Your task to perform on an android device: Show me the alarms in the clock app Image 0: 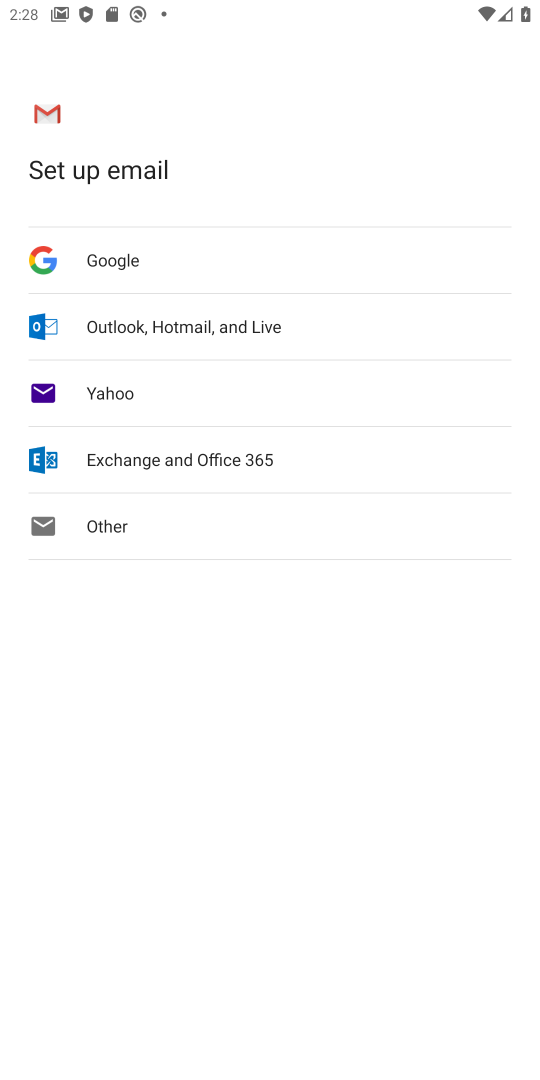
Step 0: press home button
Your task to perform on an android device: Show me the alarms in the clock app Image 1: 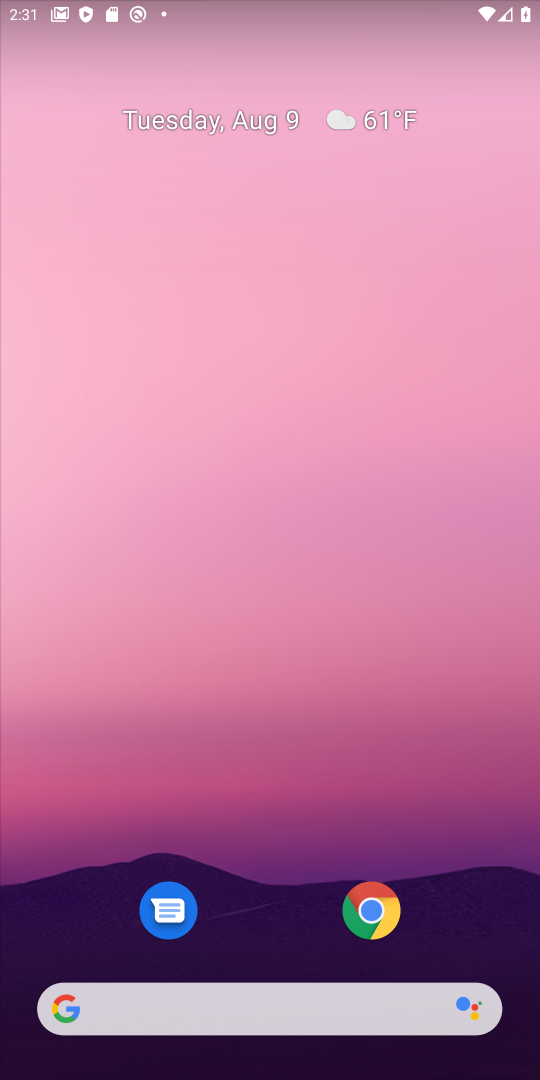
Step 1: drag from (216, 1045) to (419, 238)
Your task to perform on an android device: Show me the alarms in the clock app Image 2: 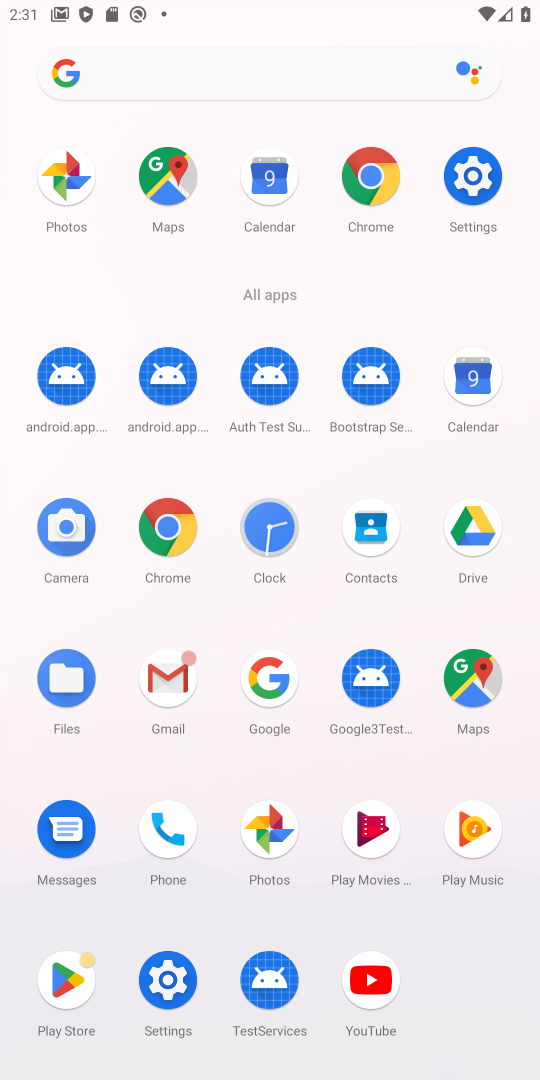
Step 2: click (271, 534)
Your task to perform on an android device: Show me the alarms in the clock app Image 3: 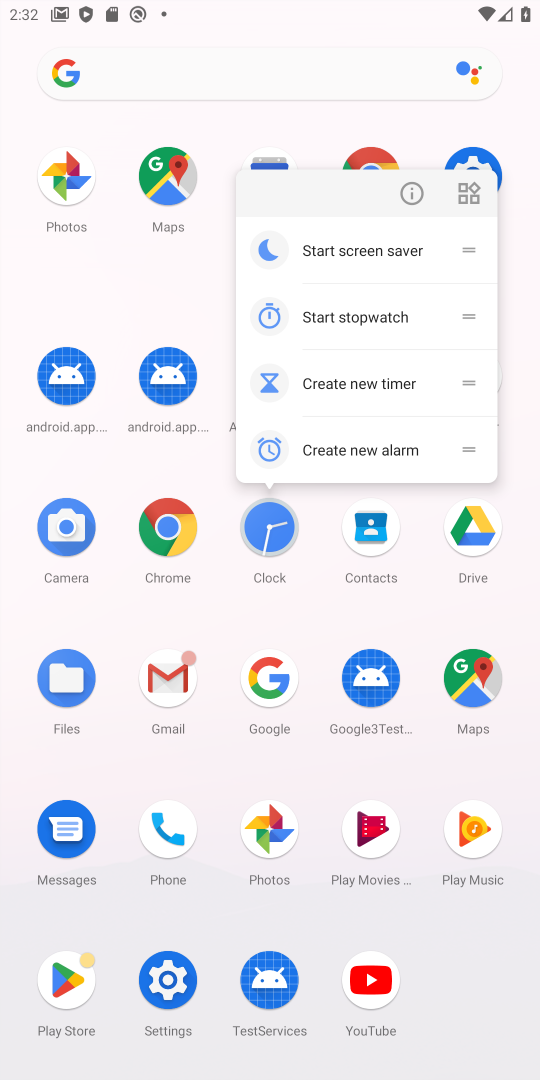
Step 3: click (264, 522)
Your task to perform on an android device: Show me the alarms in the clock app Image 4: 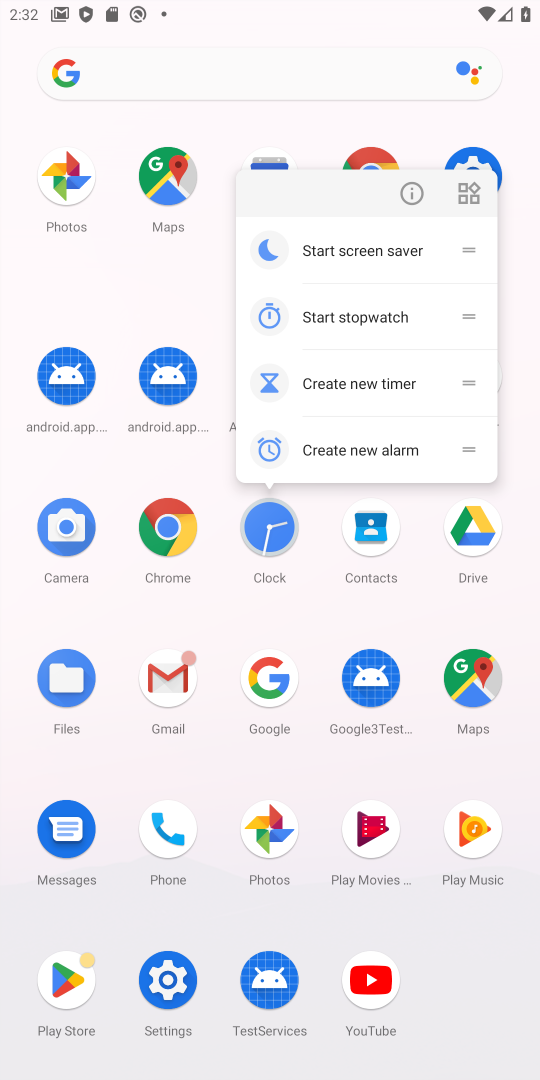
Step 4: click (264, 522)
Your task to perform on an android device: Show me the alarms in the clock app Image 5: 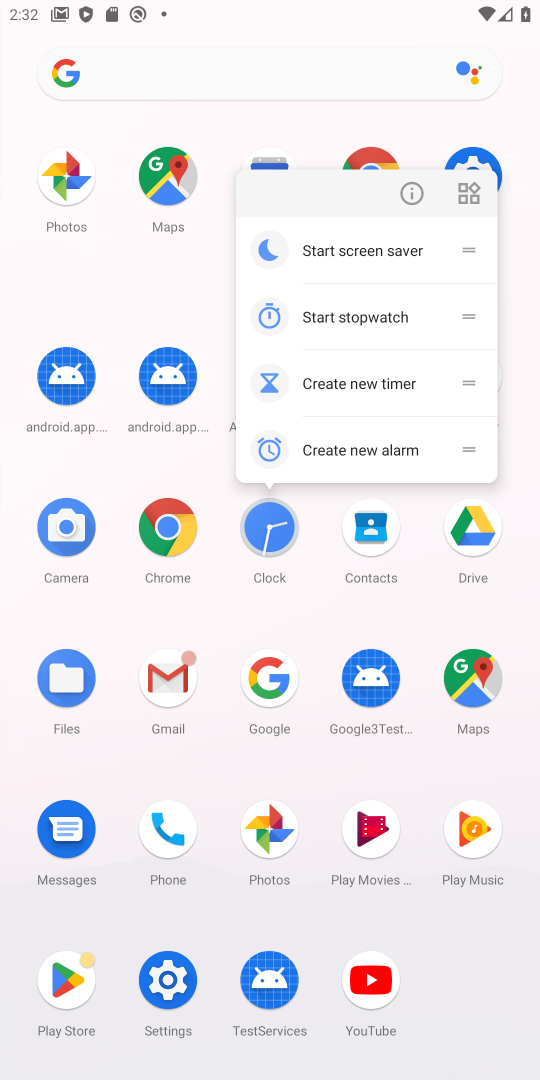
Step 5: click (270, 543)
Your task to perform on an android device: Show me the alarms in the clock app Image 6: 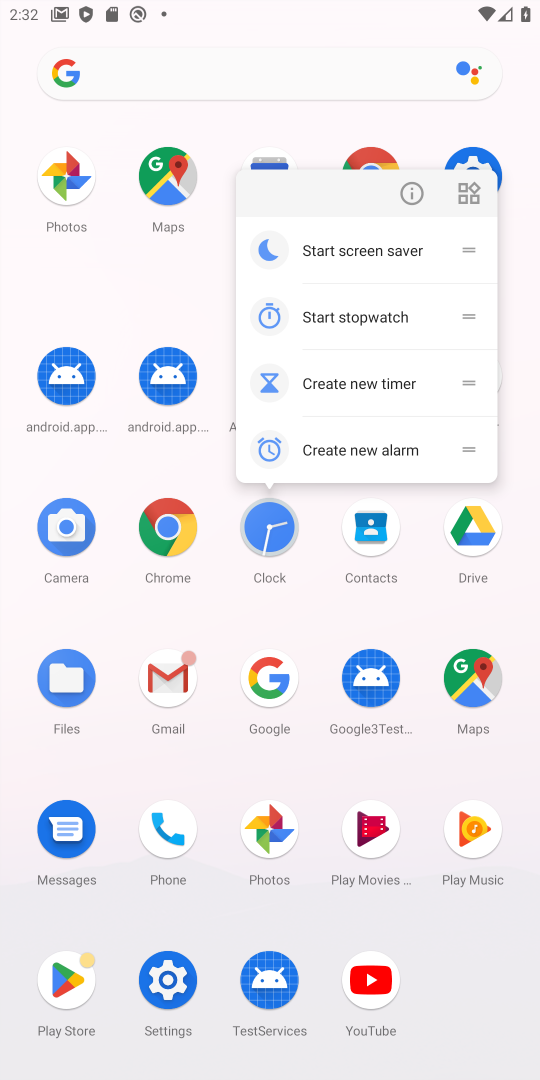
Step 6: click (270, 543)
Your task to perform on an android device: Show me the alarms in the clock app Image 7: 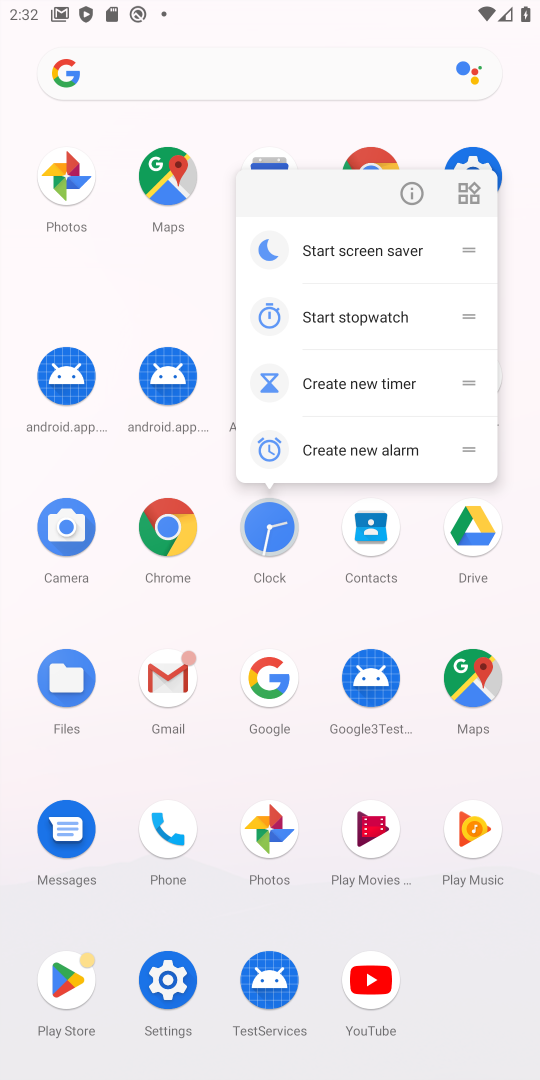
Step 7: click (270, 543)
Your task to perform on an android device: Show me the alarms in the clock app Image 8: 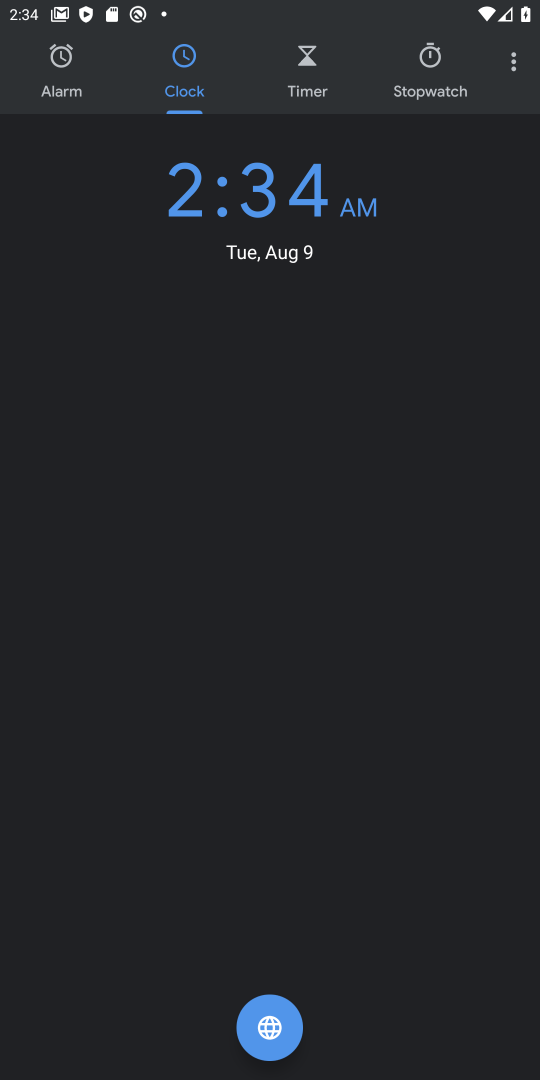
Step 8: click (73, 68)
Your task to perform on an android device: Show me the alarms in the clock app Image 9: 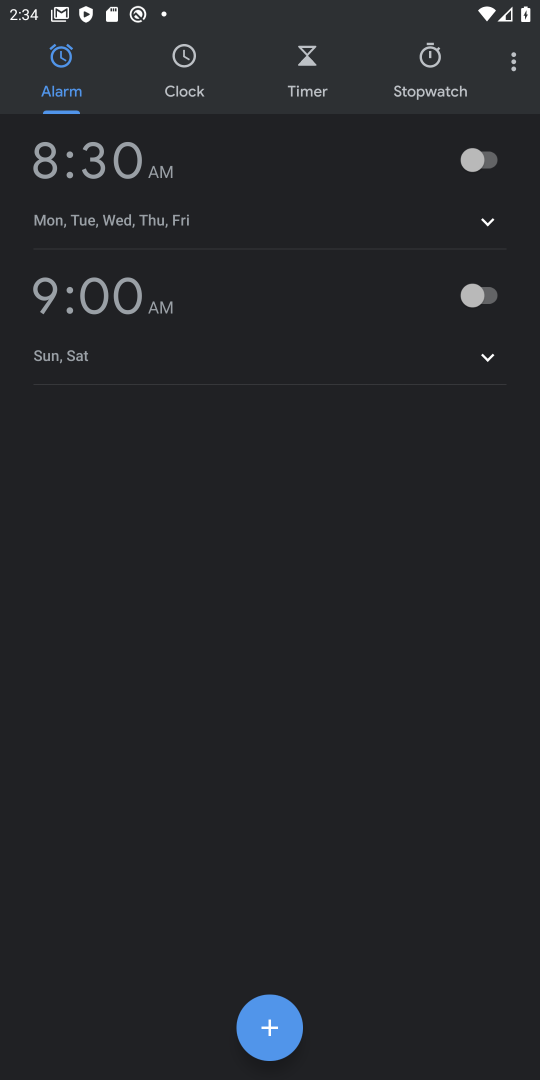
Step 9: task complete